Your task to perform on an android device: Open battery settings Image 0: 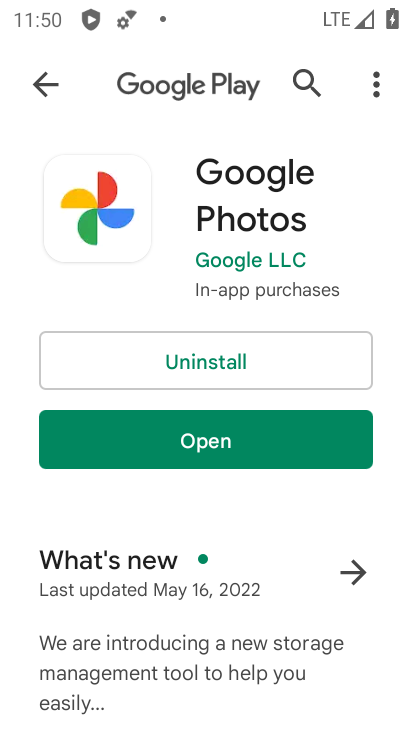
Step 0: press home button
Your task to perform on an android device: Open battery settings Image 1: 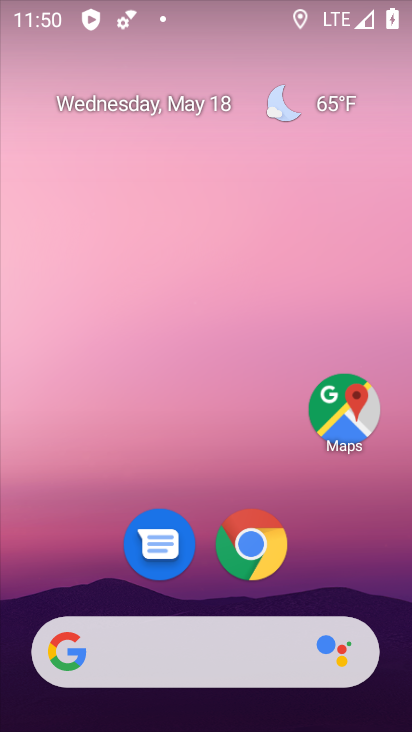
Step 1: drag from (382, 482) to (367, 198)
Your task to perform on an android device: Open battery settings Image 2: 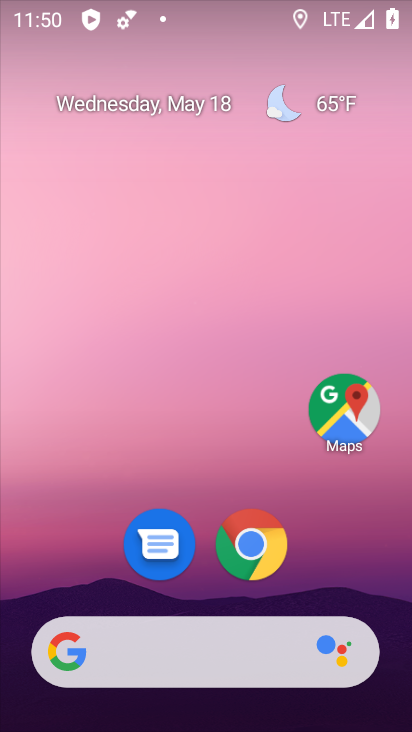
Step 2: drag from (367, 541) to (372, 151)
Your task to perform on an android device: Open battery settings Image 3: 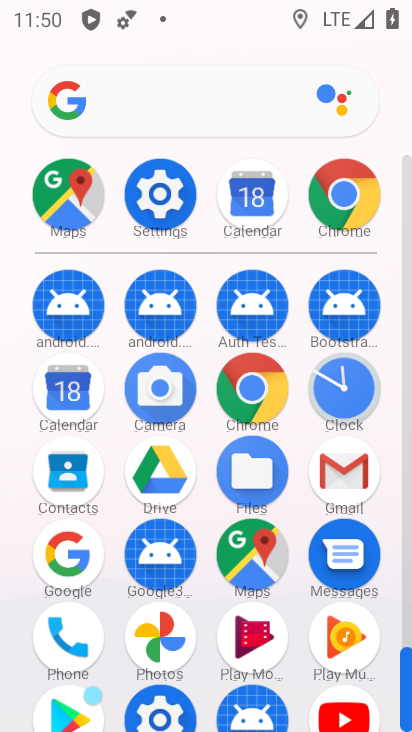
Step 3: click (149, 203)
Your task to perform on an android device: Open battery settings Image 4: 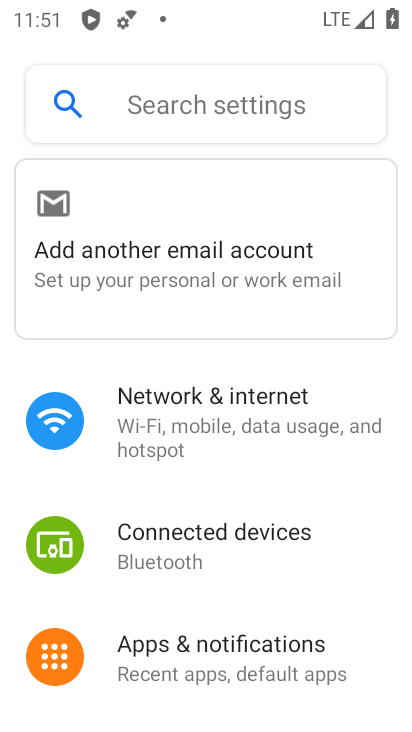
Step 4: drag from (351, 548) to (339, 424)
Your task to perform on an android device: Open battery settings Image 5: 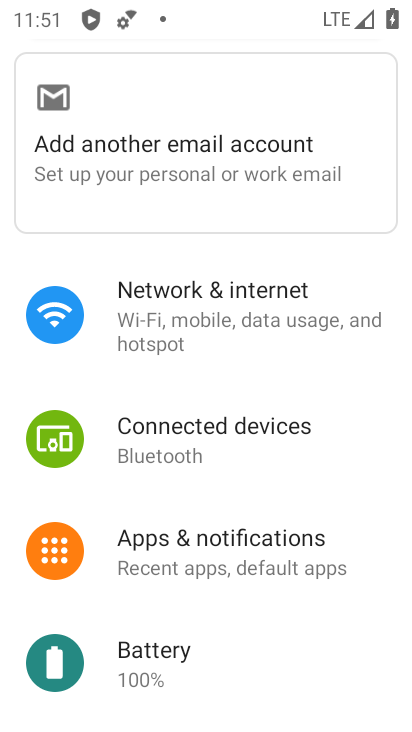
Step 5: drag from (351, 563) to (341, 432)
Your task to perform on an android device: Open battery settings Image 6: 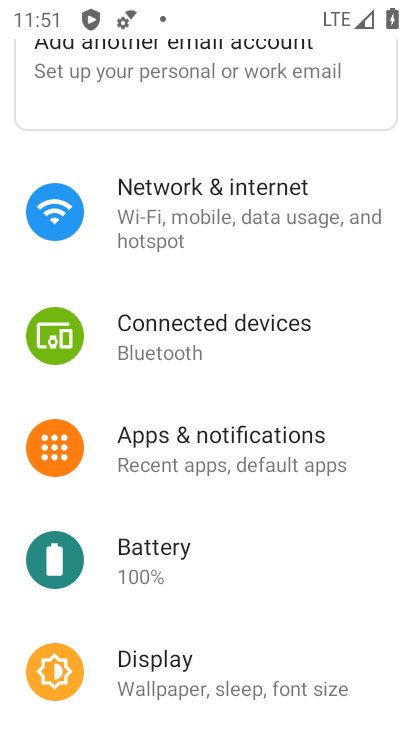
Step 6: drag from (327, 539) to (317, 475)
Your task to perform on an android device: Open battery settings Image 7: 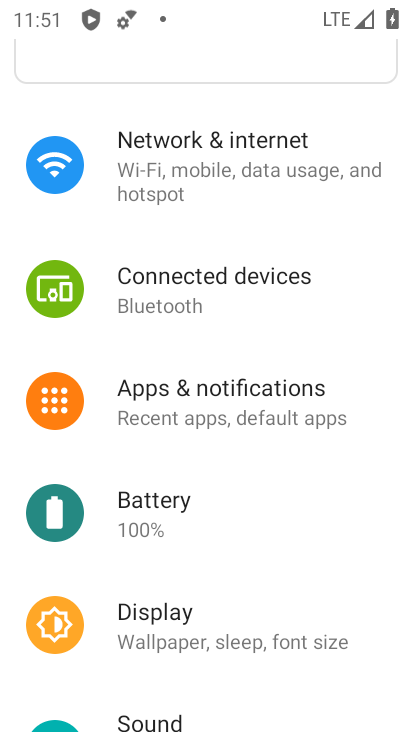
Step 7: click (192, 511)
Your task to perform on an android device: Open battery settings Image 8: 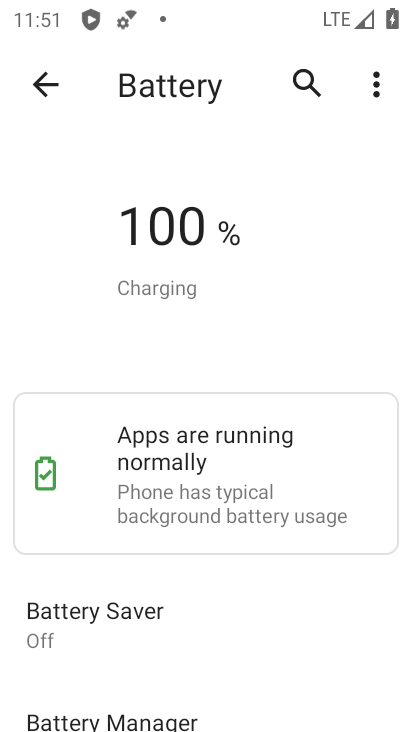
Step 8: task complete